Your task to perform on an android device: Turn off the flashlight Image 0: 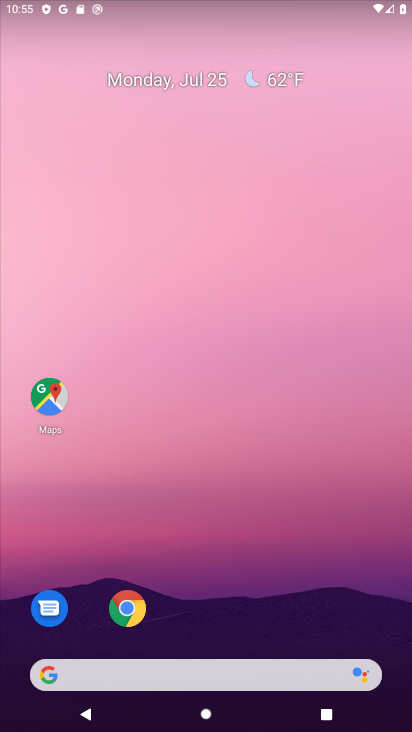
Step 0: drag from (249, 503) to (252, 62)
Your task to perform on an android device: Turn off the flashlight Image 1: 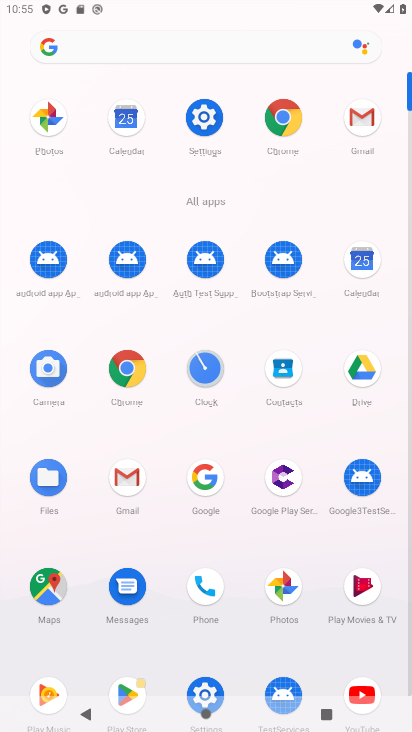
Step 1: task complete